Your task to perform on an android device: What's the weather? Image 0: 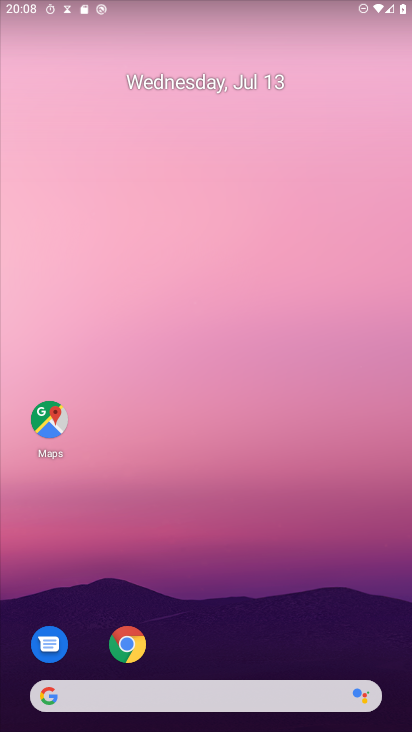
Step 0: click (149, 705)
Your task to perform on an android device: What's the weather? Image 1: 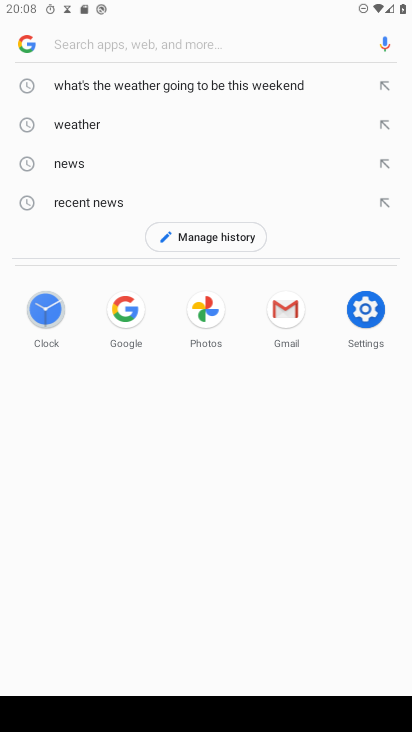
Step 1: type "What's the weather?"
Your task to perform on an android device: What's the weather? Image 2: 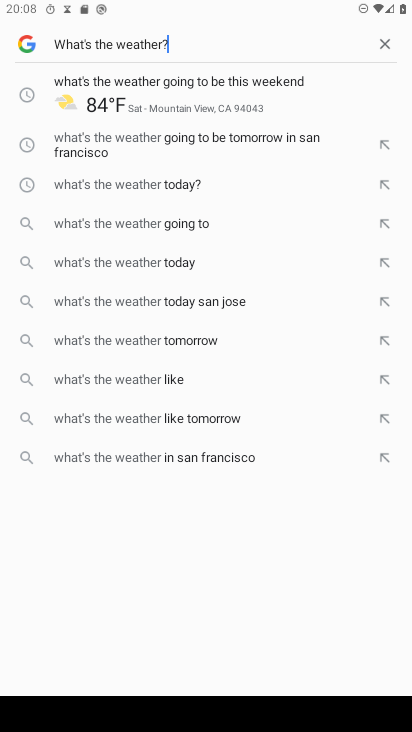
Step 2: click (188, 253)
Your task to perform on an android device: What's the weather? Image 3: 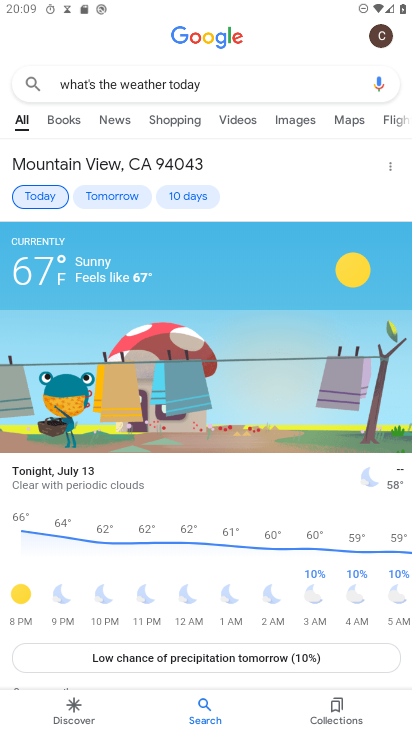
Step 3: task complete